Your task to perform on an android device: turn on improve location accuracy Image 0: 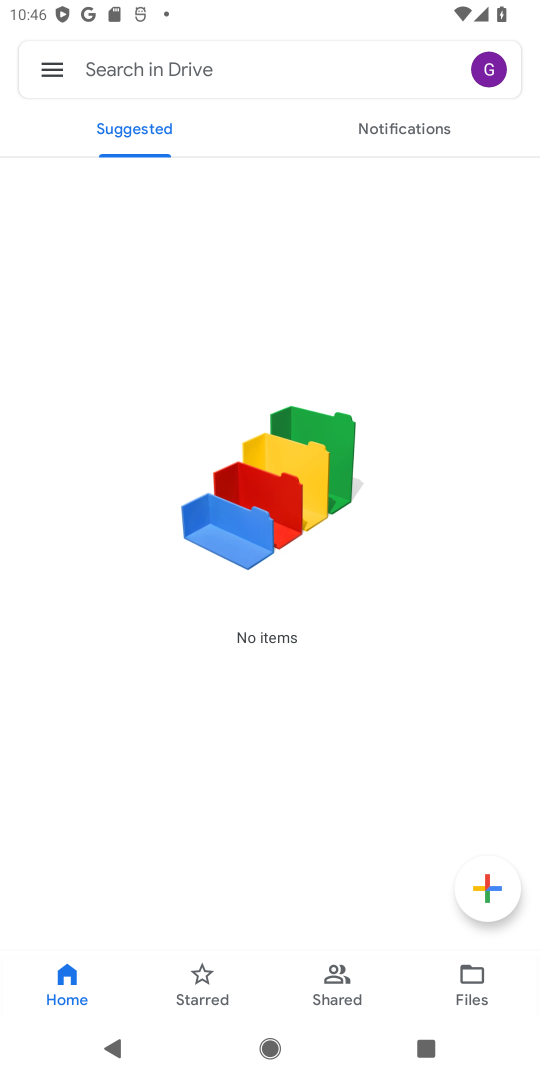
Step 0: press home button
Your task to perform on an android device: turn on improve location accuracy Image 1: 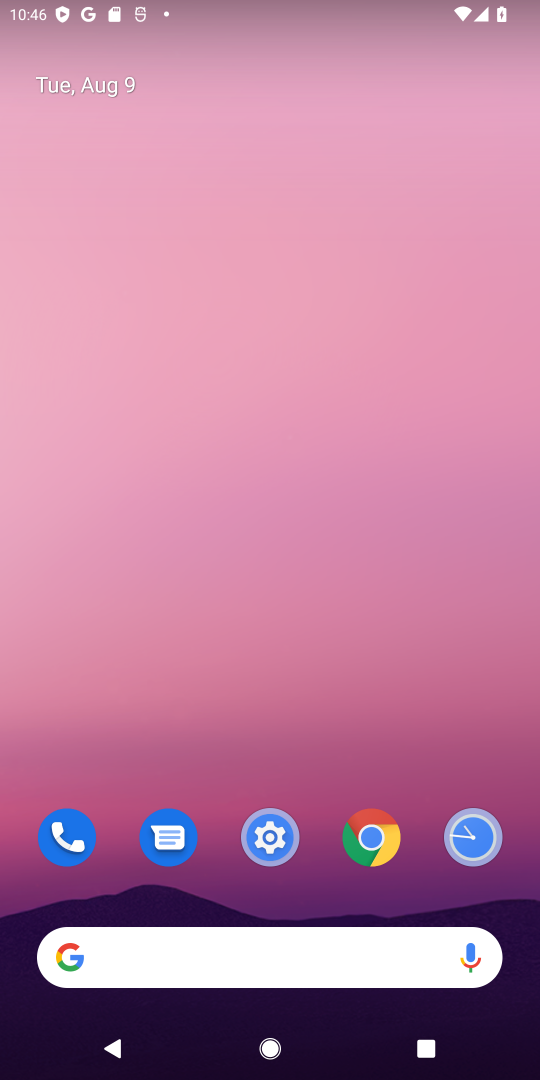
Step 1: drag from (343, 867) to (336, 11)
Your task to perform on an android device: turn on improve location accuracy Image 2: 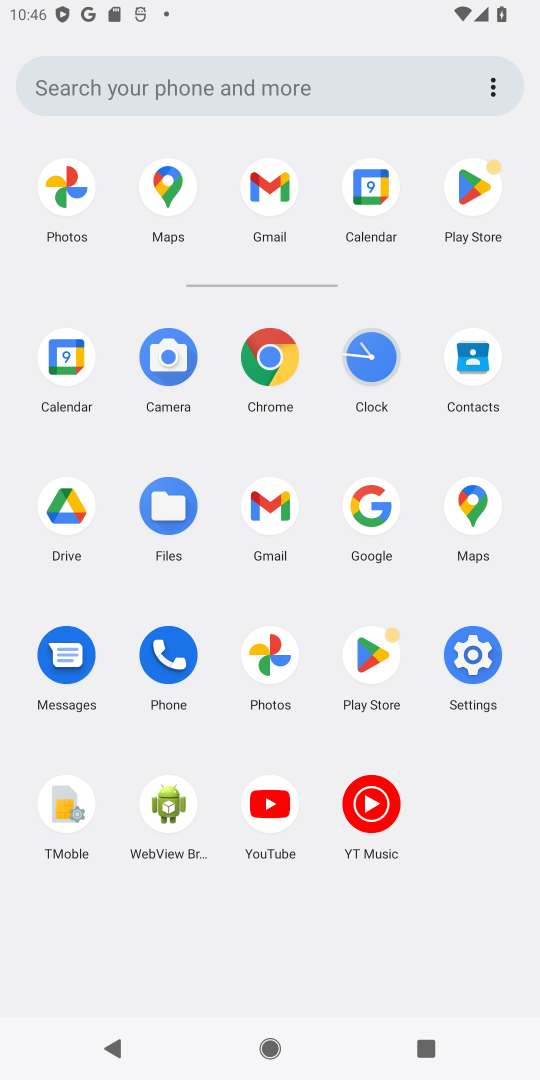
Step 2: click (474, 671)
Your task to perform on an android device: turn on improve location accuracy Image 3: 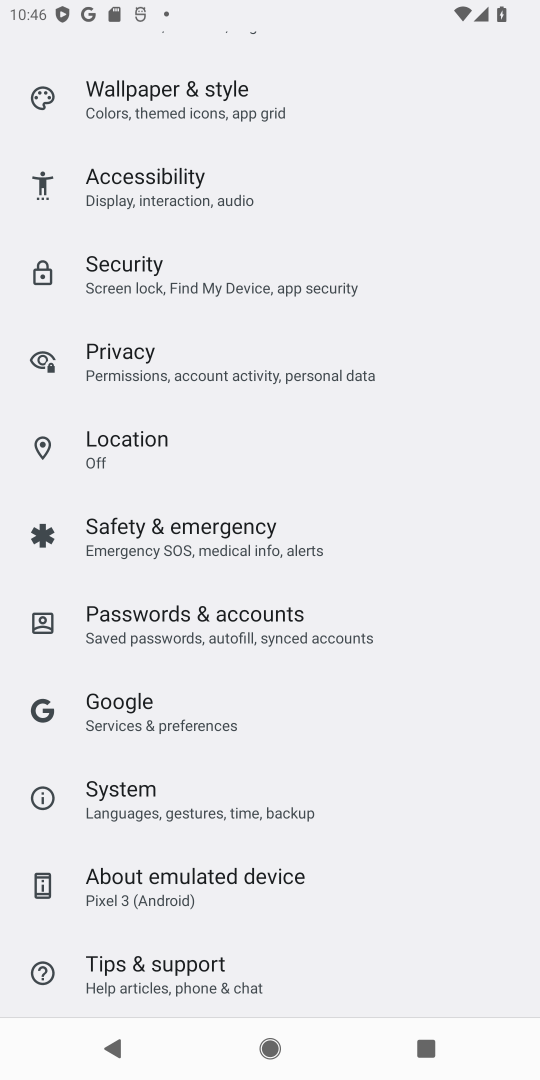
Step 3: click (130, 434)
Your task to perform on an android device: turn on improve location accuracy Image 4: 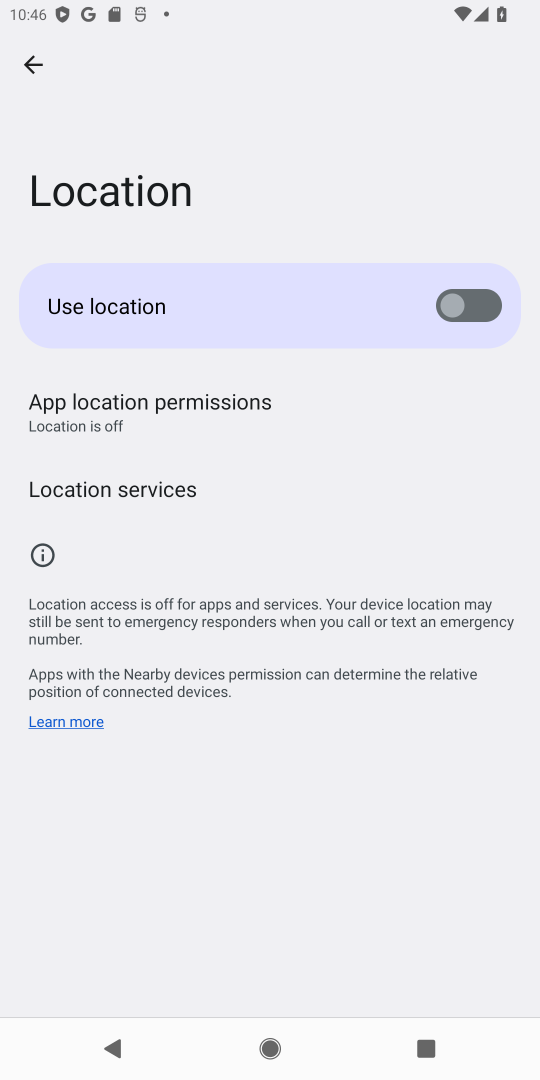
Step 4: click (101, 484)
Your task to perform on an android device: turn on improve location accuracy Image 5: 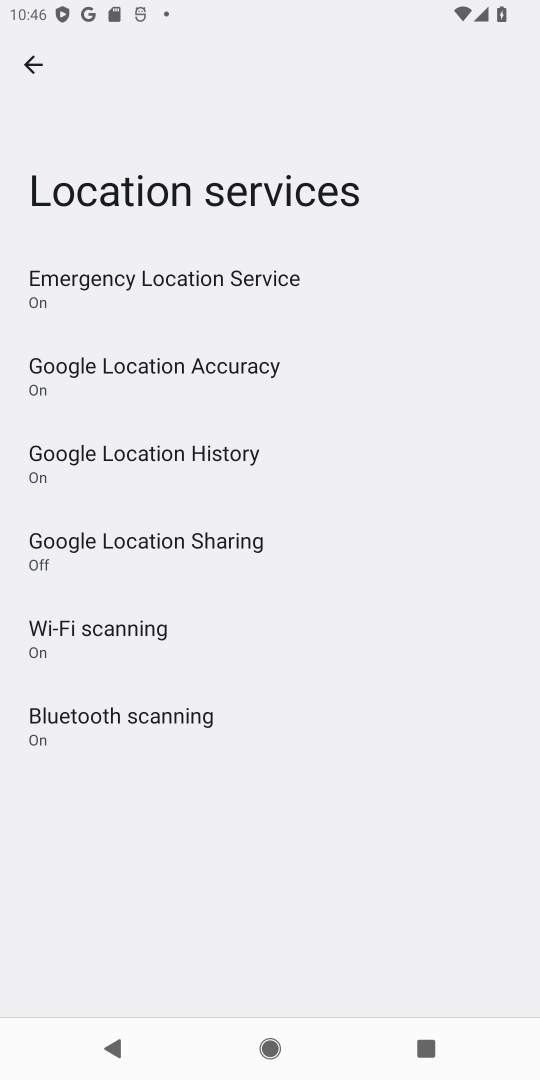
Step 5: click (211, 365)
Your task to perform on an android device: turn on improve location accuracy Image 6: 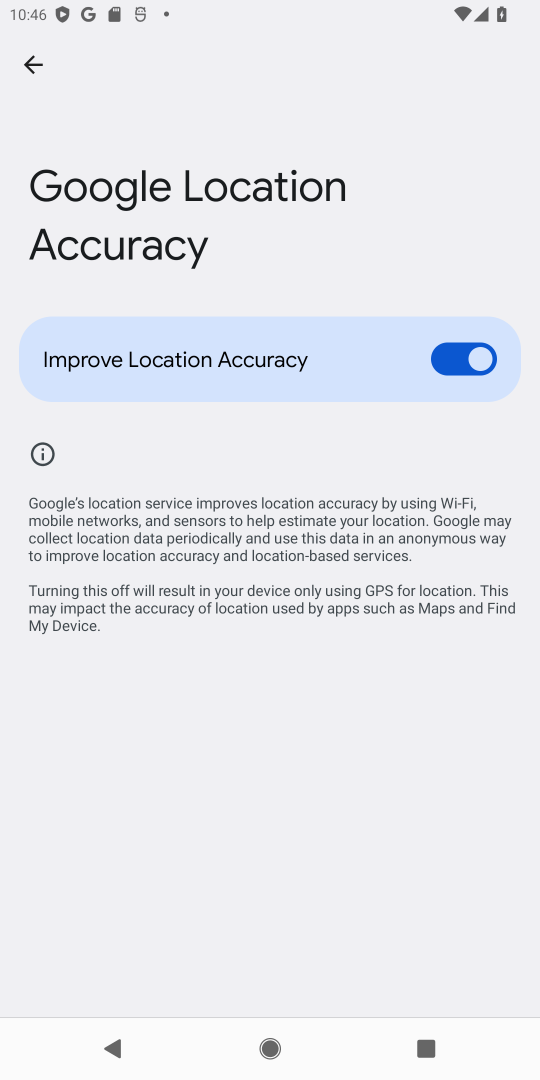
Step 6: task complete